Your task to perform on an android device: turn off smart reply in the gmail app Image 0: 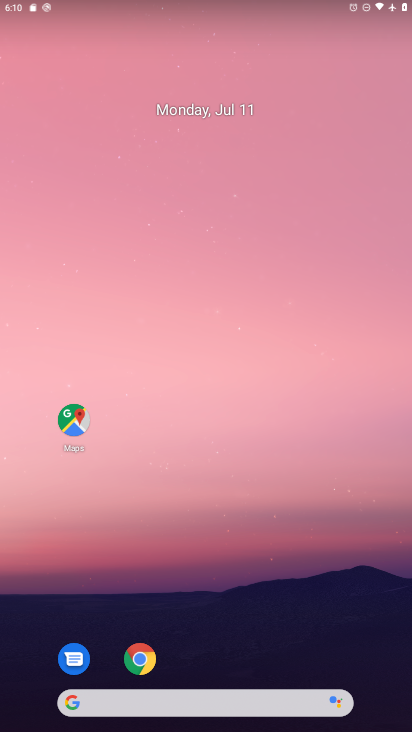
Step 0: drag from (372, 655) to (322, 81)
Your task to perform on an android device: turn off smart reply in the gmail app Image 1: 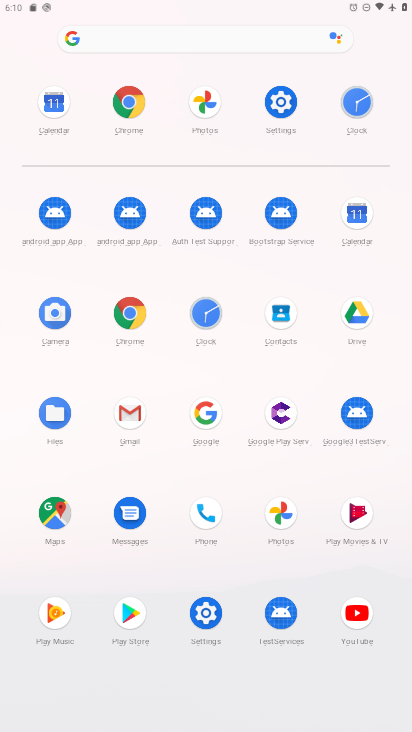
Step 1: click (126, 407)
Your task to perform on an android device: turn off smart reply in the gmail app Image 2: 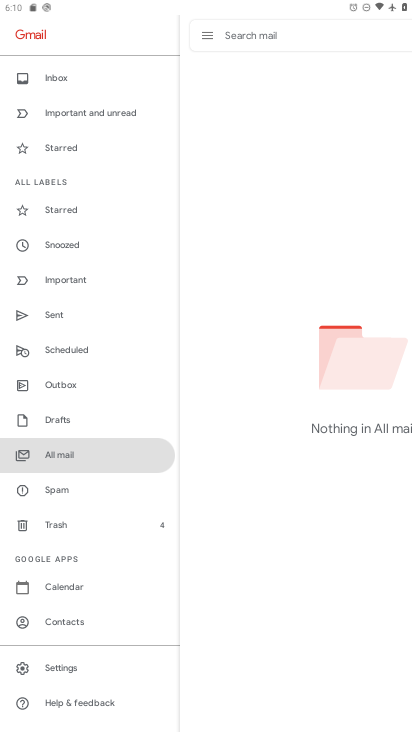
Step 2: click (61, 666)
Your task to perform on an android device: turn off smart reply in the gmail app Image 3: 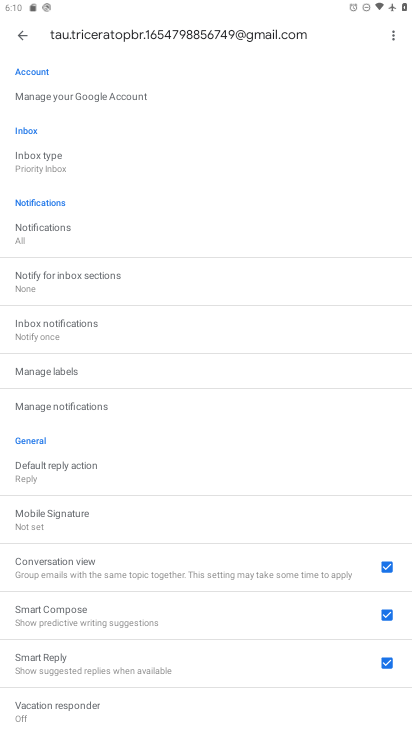
Step 3: drag from (234, 623) to (231, 308)
Your task to perform on an android device: turn off smart reply in the gmail app Image 4: 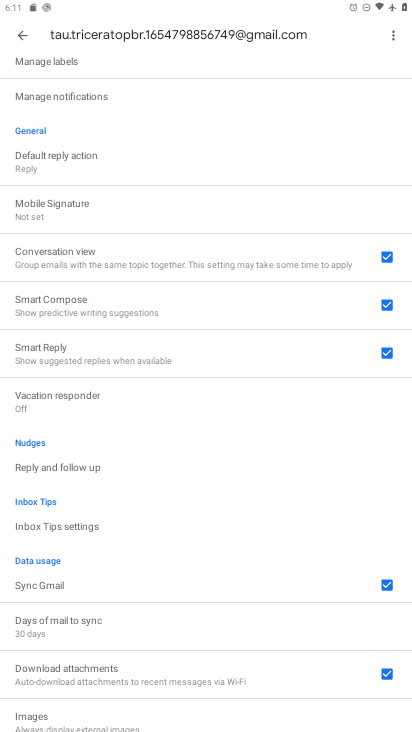
Step 4: click (387, 351)
Your task to perform on an android device: turn off smart reply in the gmail app Image 5: 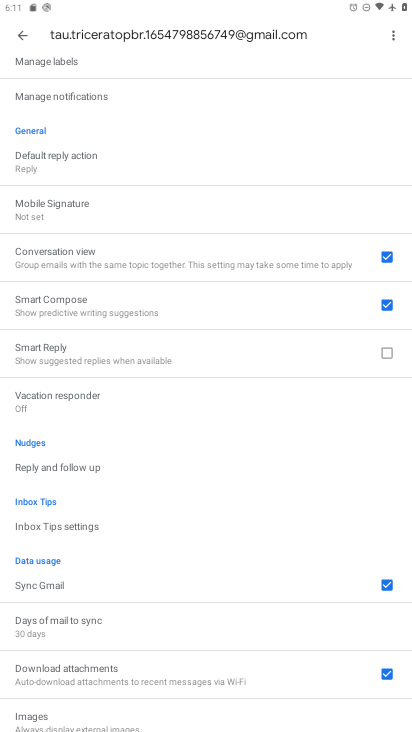
Step 5: task complete